Your task to perform on an android device: visit the assistant section in the google photos Image 0: 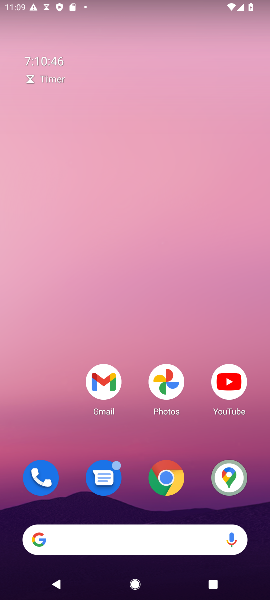
Step 0: click (171, 400)
Your task to perform on an android device: visit the assistant section in the google photos Image 1: 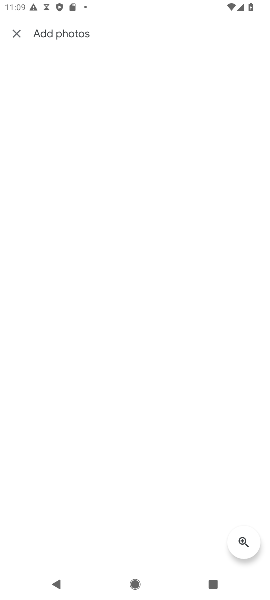
Step 1: click (16, 37)
Your task to perform on an android device: visit the assistant section in the google photos Image 2: 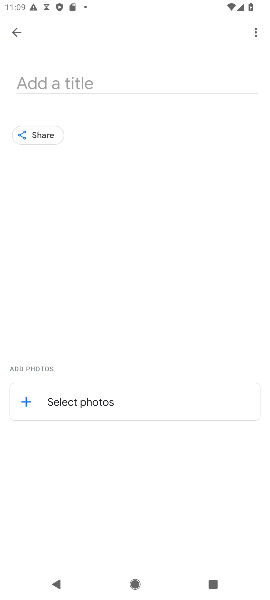
Step 2: click (14, 27)
Your task to perform on an android device: visit the assistant section in the google photos Image 3: 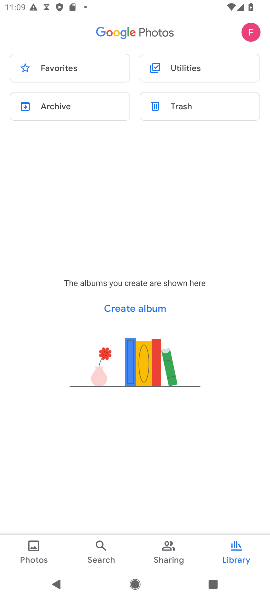
Step 3: task complete